Your task to perform on an android device: toggle improve location accuracy Image 0: 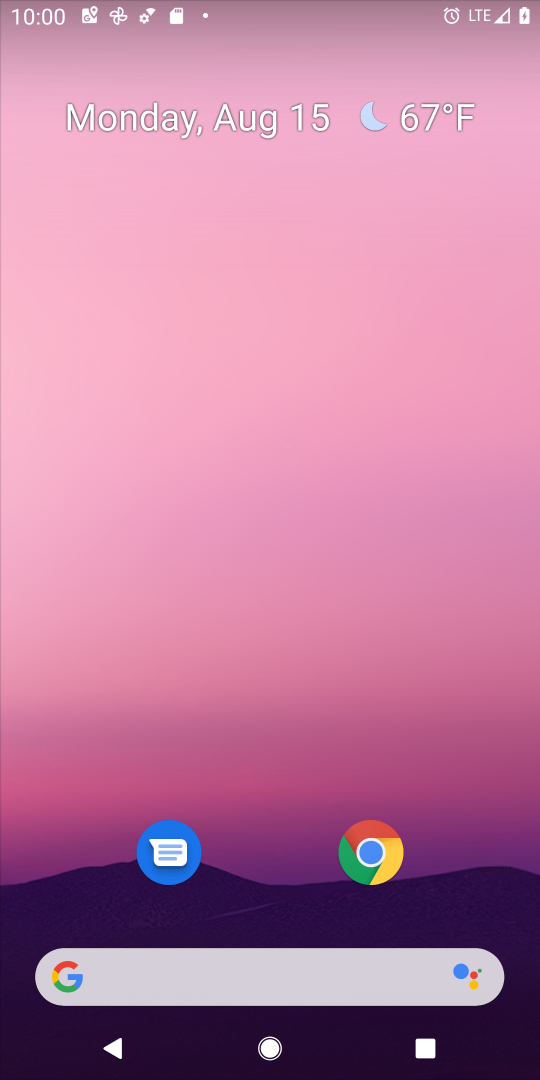
Step 0: drag from (224, 972) to (331, 166)
Your task to perform on an android device: toggle improve location accuracy Image 1: 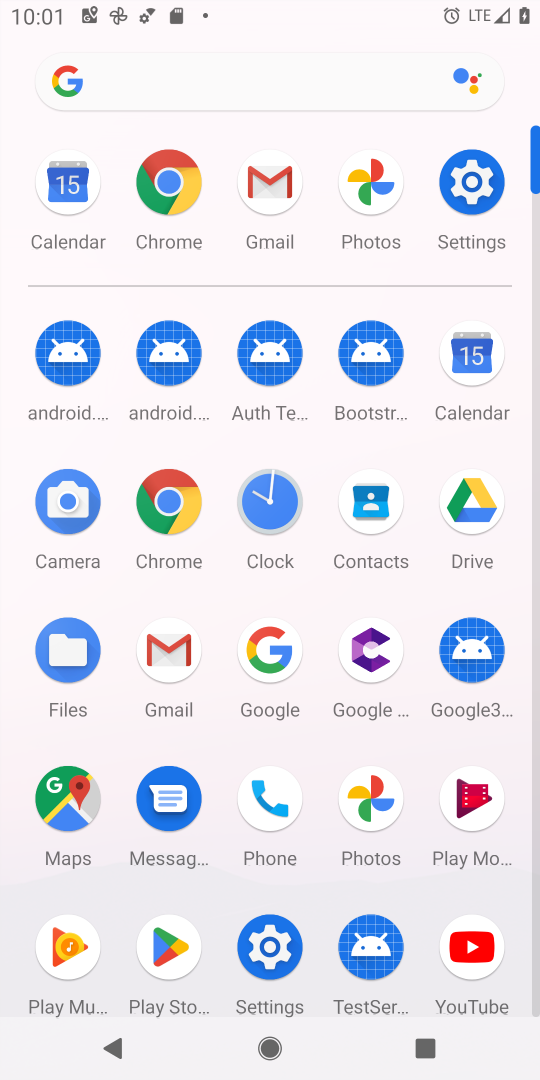
Step 1: click (470, 182)
Your task to perform on an android device: toggle improve location accuracy Image 2: 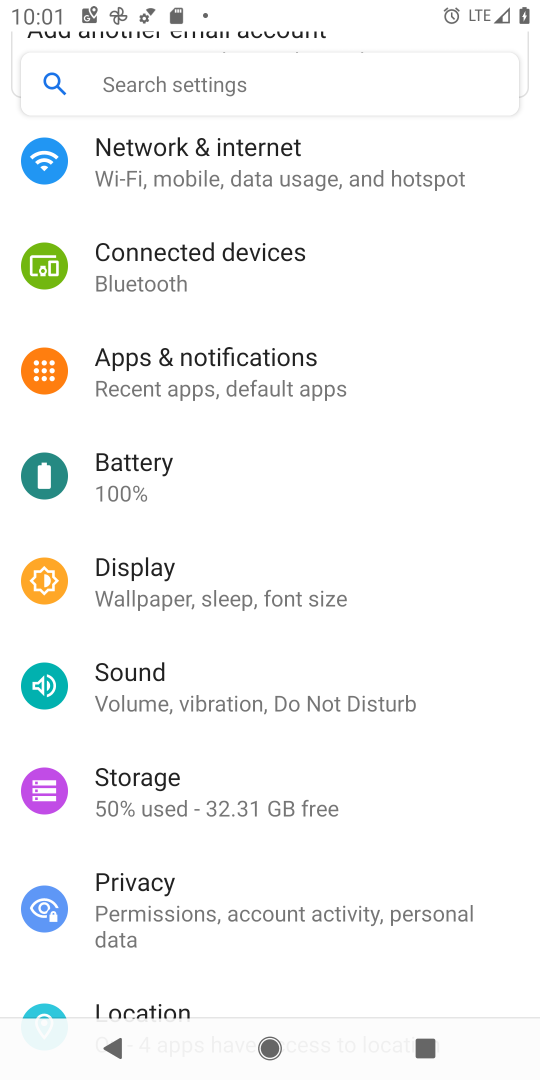
Step 2: drag from (365, 749) to (436, 525)
Your task to perform on an android device: toggle improve location accuracy Image 3: 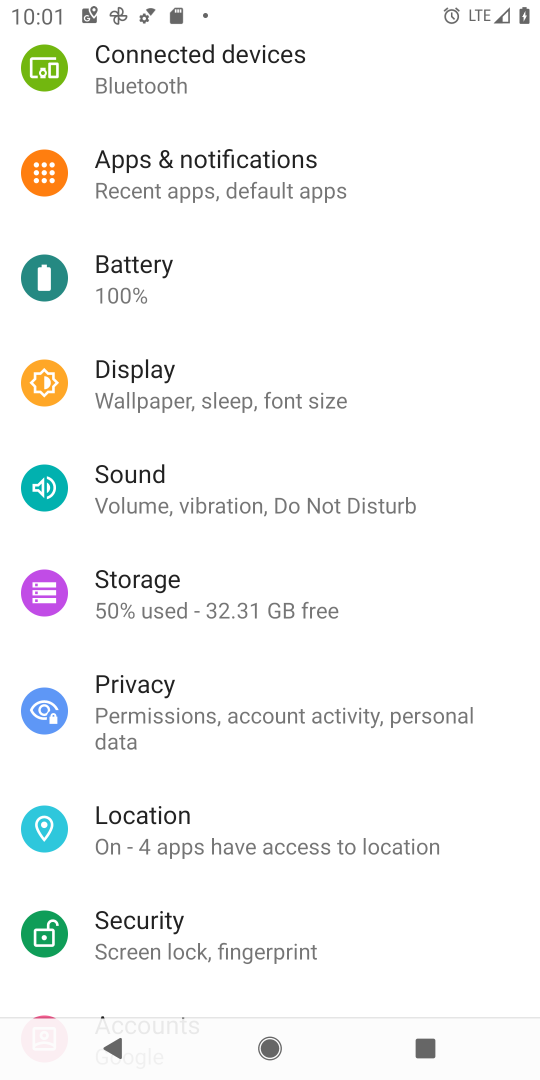
Step 3: click (160, 842)
Your task to perform on an android device: toggle improve location accuracy Image 4: 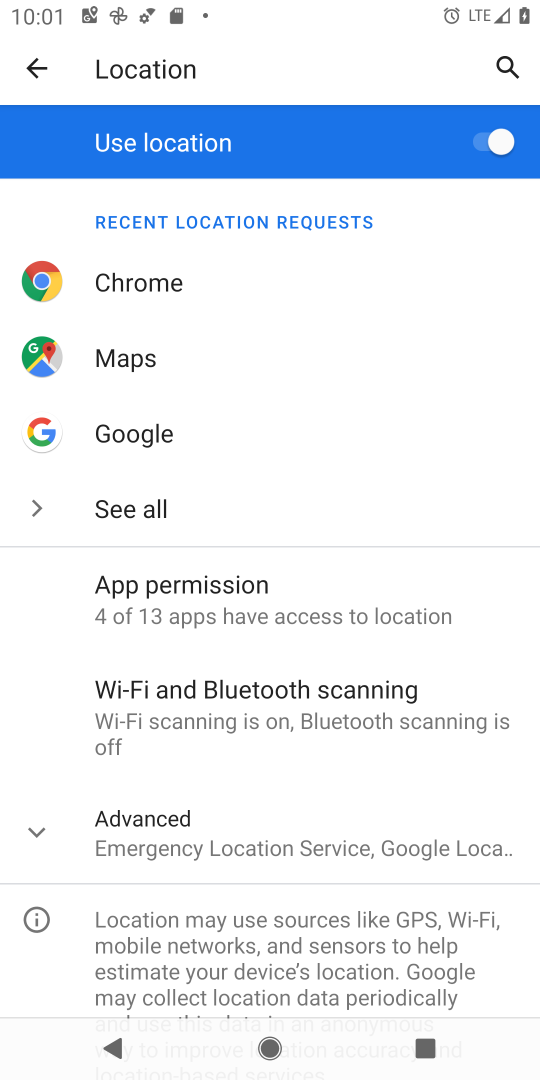
Step 4: click (201, 846)
Your task to perform on an android device: toggle improve location accuracy Image 5: 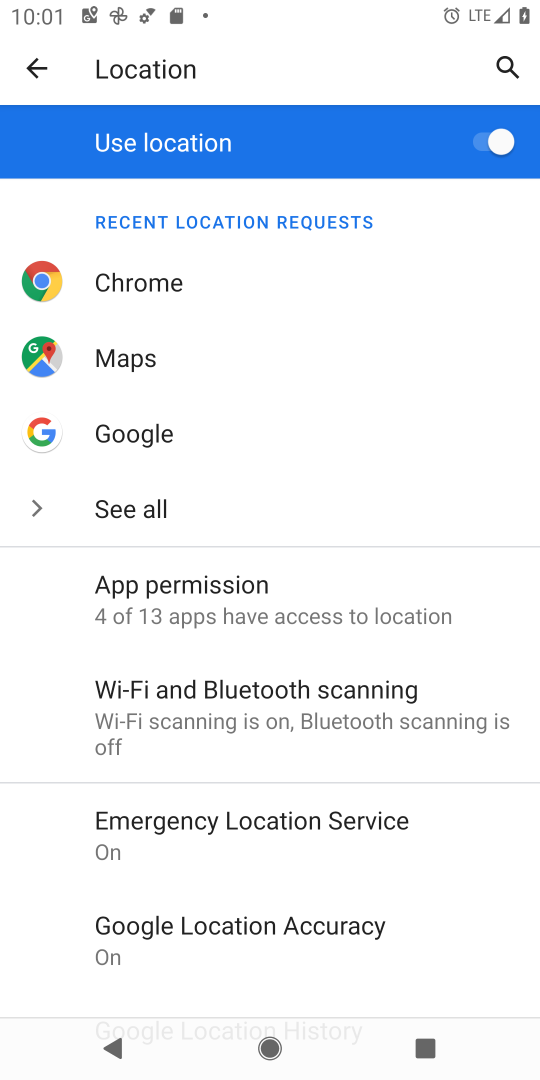
Step 5: drag from (208, 958) to (282, 807)
Your task to perform on an android device: toggle improve location accuracy Image 6: 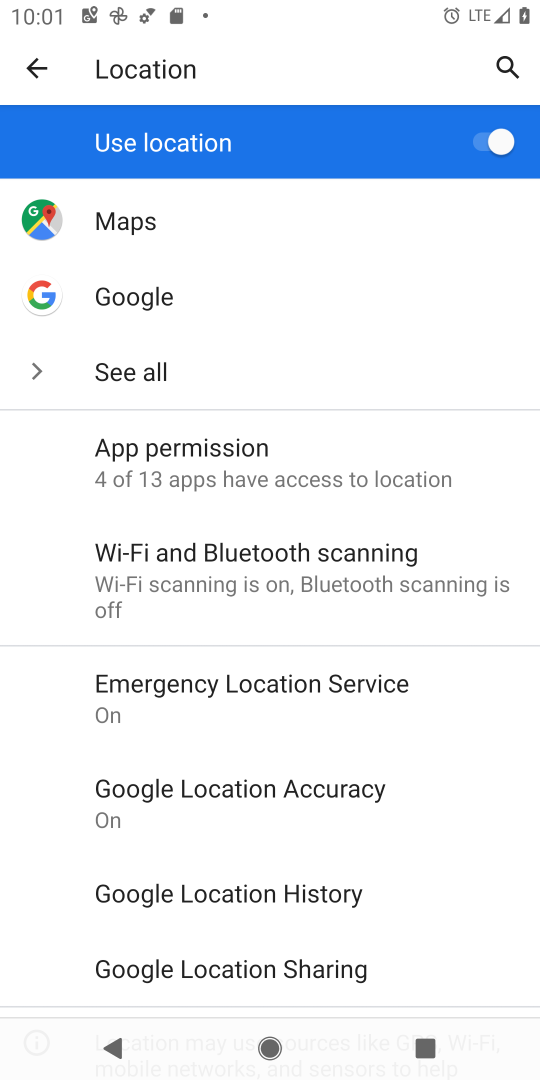
Step 6: click (286, 799)
Your task to perform on an android device: toggle improve location accuracy Image 7: 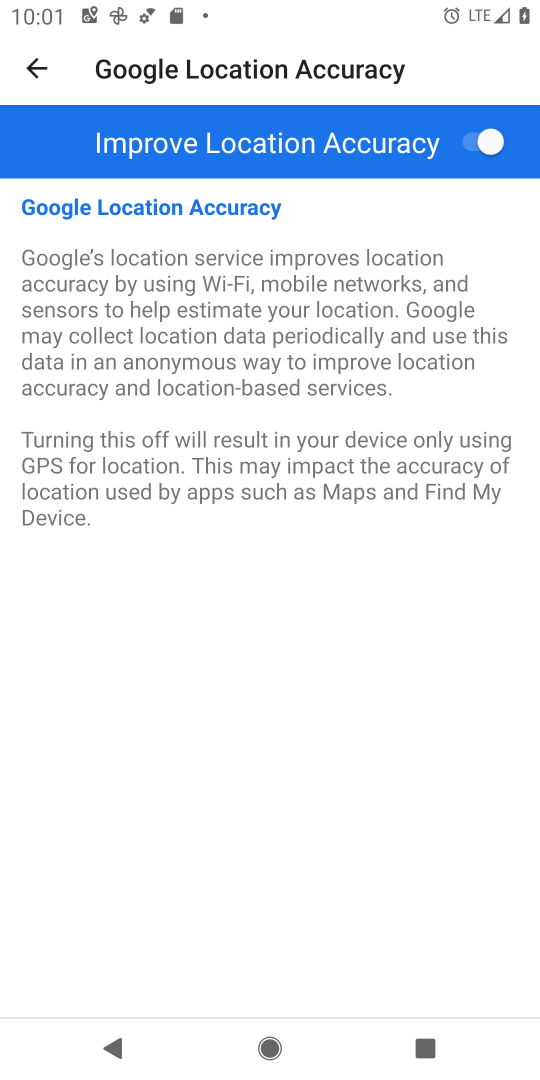
Step 7: click (460, 144)
Your task to perform on an android device: toggle improve location accuracy Image 8: 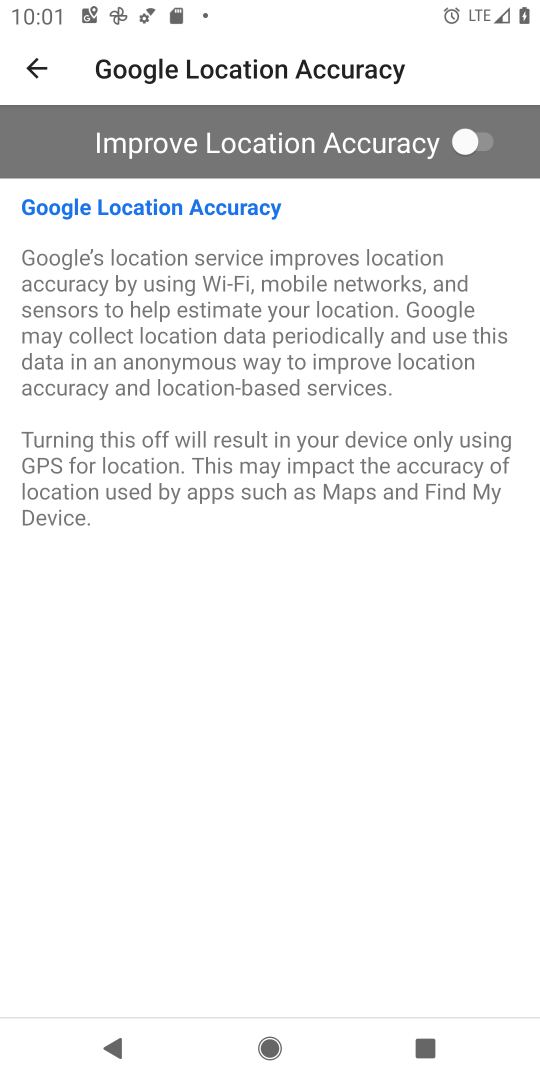
Step 8: task complete